Your task to perform on an android device: Open sound settings Image 0: 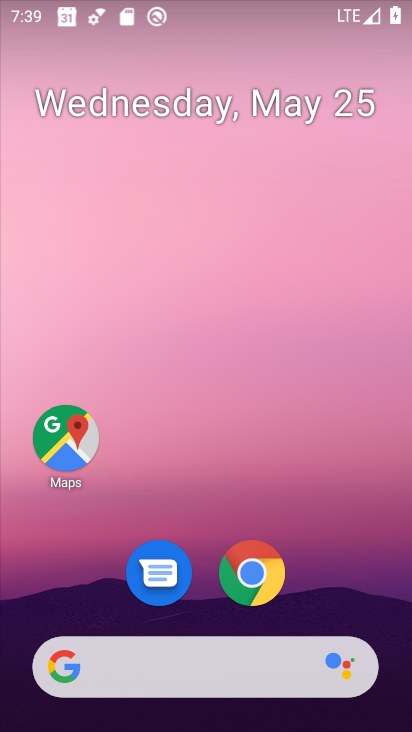
Step 0: drag from (386, 669) to (346, 124)
Your task to perform on an android device: Open sound settings Image 1: 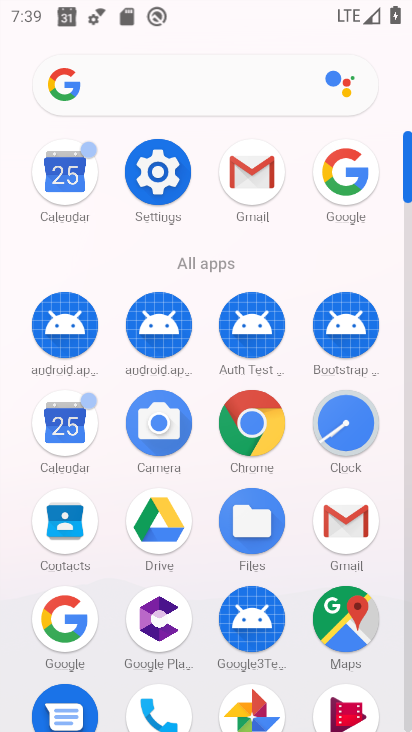
Step 1: click (144, 150)
Your task to perform on an android device: Open sound settings Image 2: 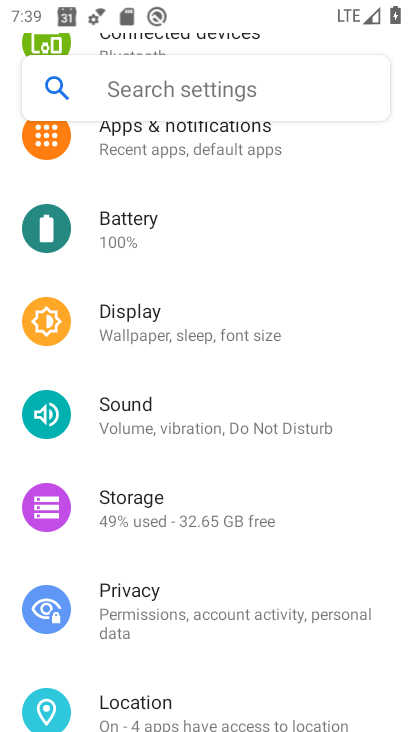
Step 2: click (129, 410)
Your task to perform on an android device: Open sound settings Image 3: 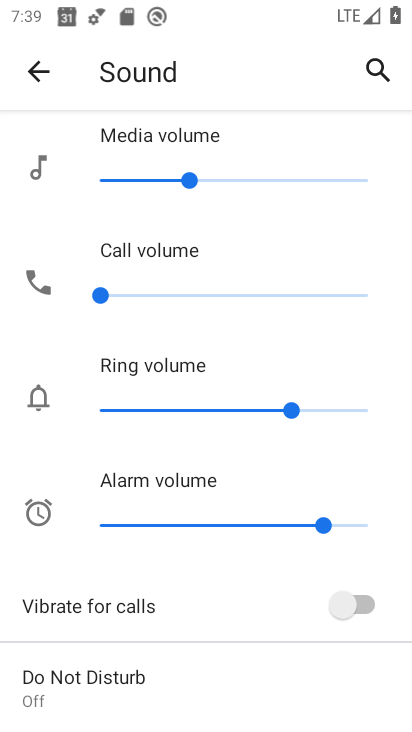
Step 3: task complete